Your task to perform on an android device: remove spam from my inbox in the gmail app Image 0: 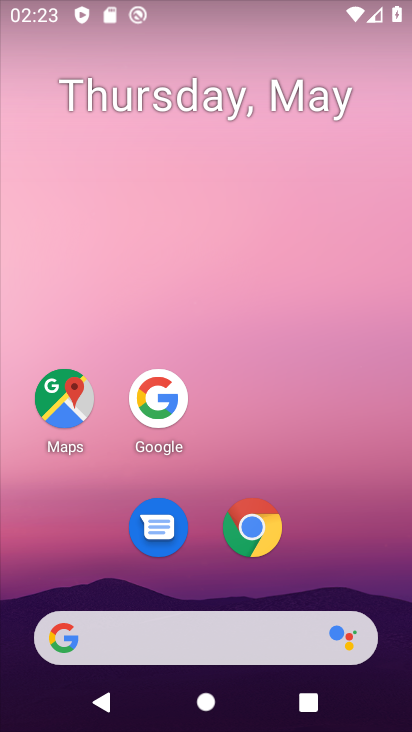
Step 0: drag from (193, 563) to (305, 29)
Your task to perform on an android device: remove spam from my inbox in the gmail app Image 1: 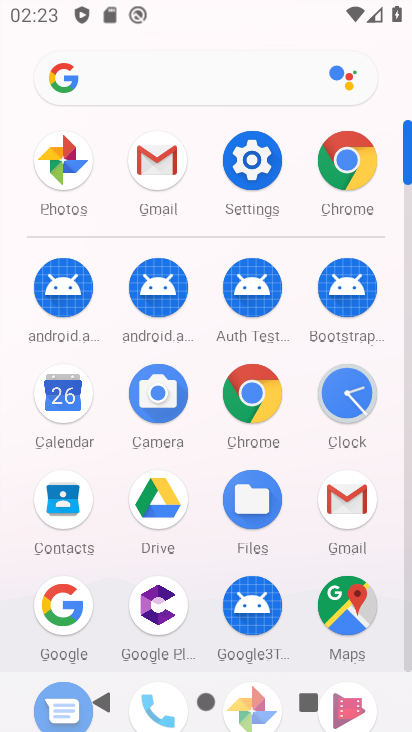
Step 1: click (322, 502)
Your task to perform on an android device: remove spam from my inbox in the gmail app Image 2: 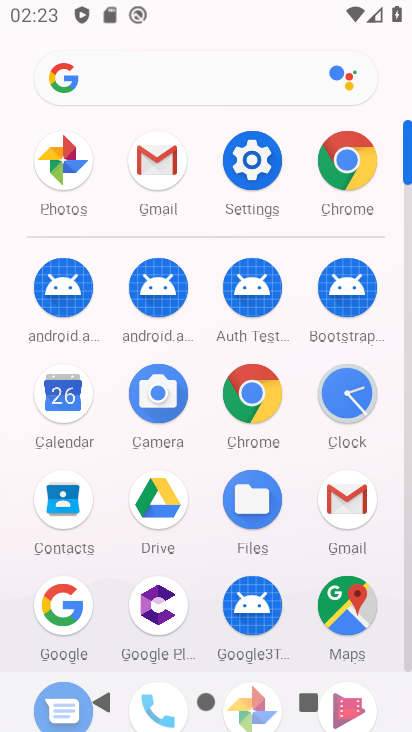
Step 2: click (322, 502)
Your task to perform on an android device: remove spam from my inbox in the gmail app Image 3: 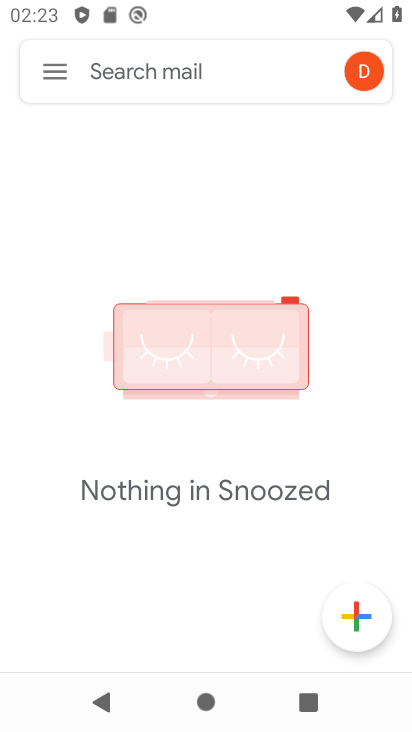
Step 3: click (48, 80)
Your task to perform on an android device: remove spam from my inbox in the gmail app Image 4: 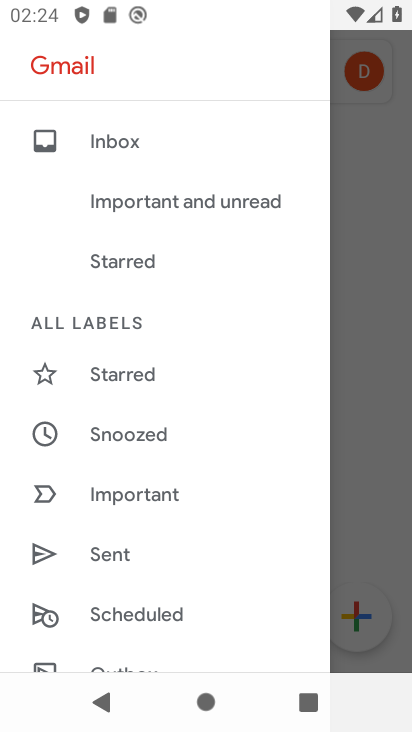
Step 4: drag from (167, 419) to (264, 19)
Your task to perform on an android device: remove spam from my inbox in the gmail app Image 5: 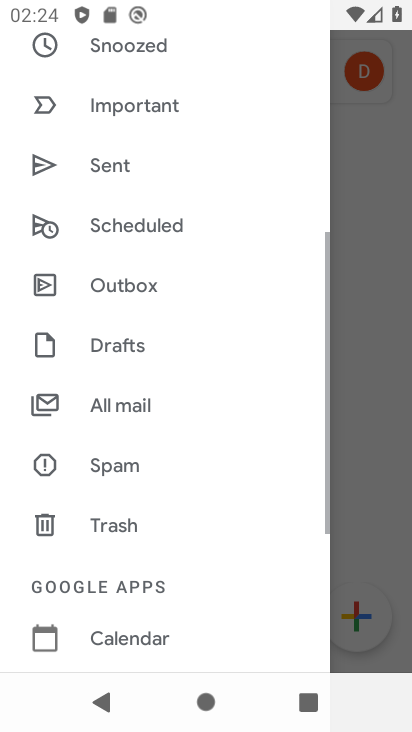
Step 5: click (141, 471)
Your task to perform on an android device: remove spam from my inbox in the gmail app Image 6: 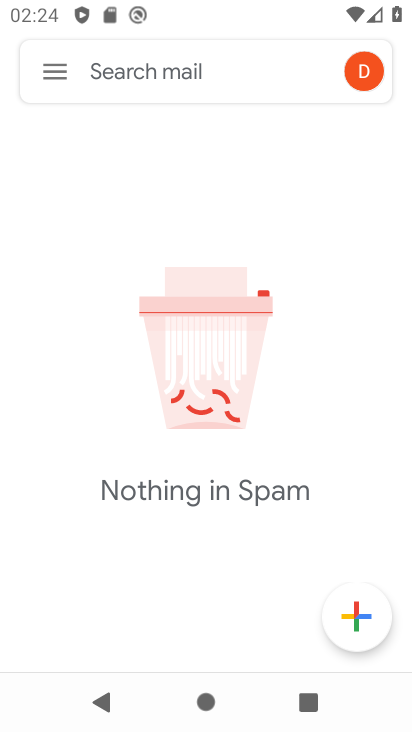
Step 6: task complete